Your task to perform on an android device: clear history in the chrome app Image 0: 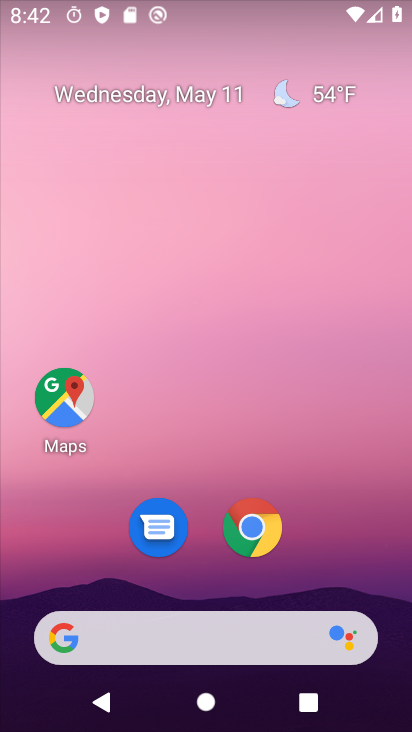
Step 0: click (255, 524)
Your task to perform on an android device: clear history in the chrome app Image 1: 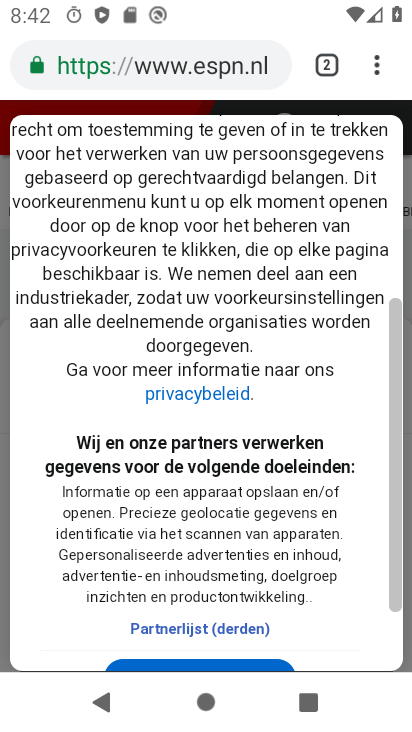
Step 1: click (374, 60)
Your task to perform on an android device: clear history in the chrome app Image 2: 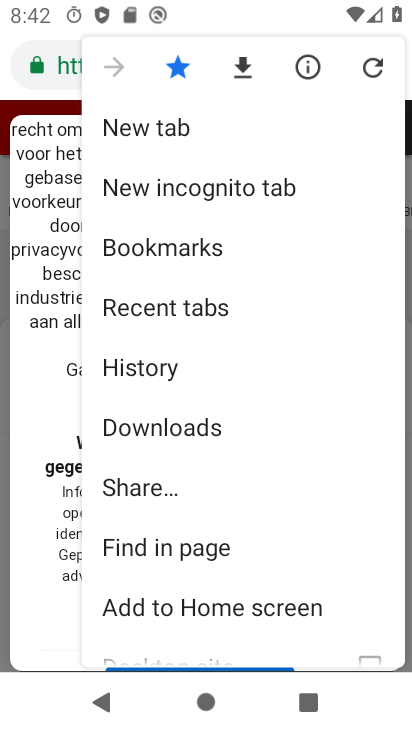
Step 2: click (169, 369)
Your task to perform on an android device: clear history in the chrome app Image 3: 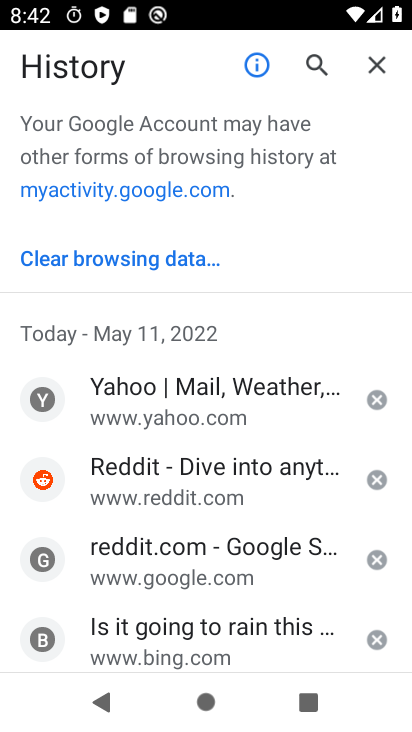
Step 3: click (146, 266)
Your task to perform on an android device: clear history in the chrome app Image 4: 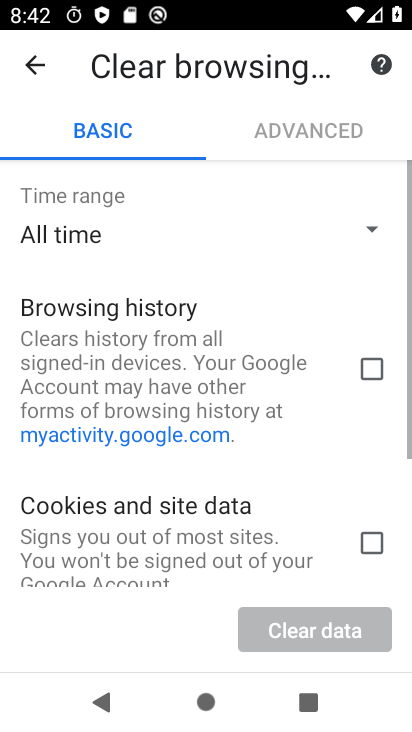
Step 4: click (363, 371)
Your task to perform on an android device: clear history in the chrome app Image 5: 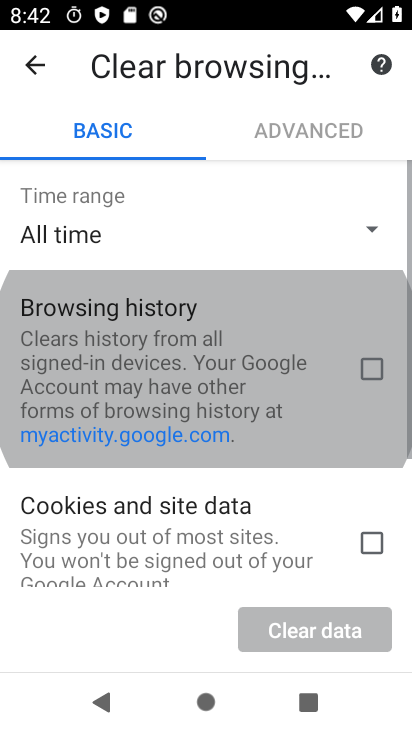
Step 5: drag from (288, 460) to (240, 77)
Your task to perform on an android device: clear history in the chrome app Image 6: 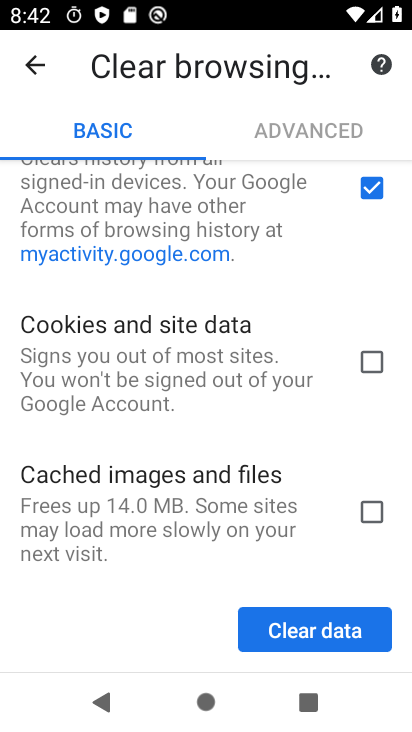
Step 6: click (314, 622)
Your task to perform on an android device: clear history in the chrome app Image 7: 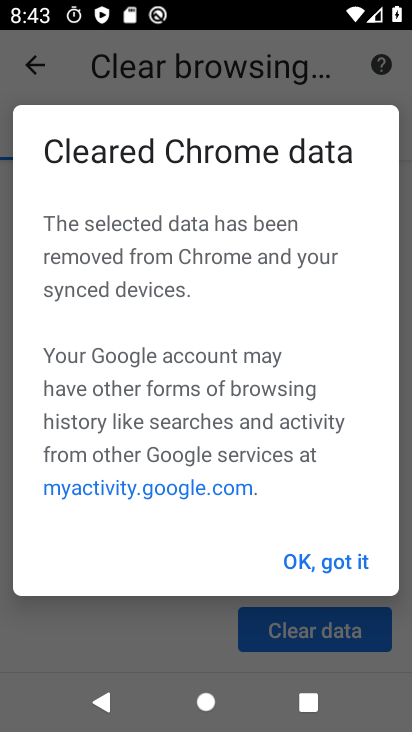
Step 7: click (312, 571)
Your task to perform on an android device: clear history in the chrome app Image 8: 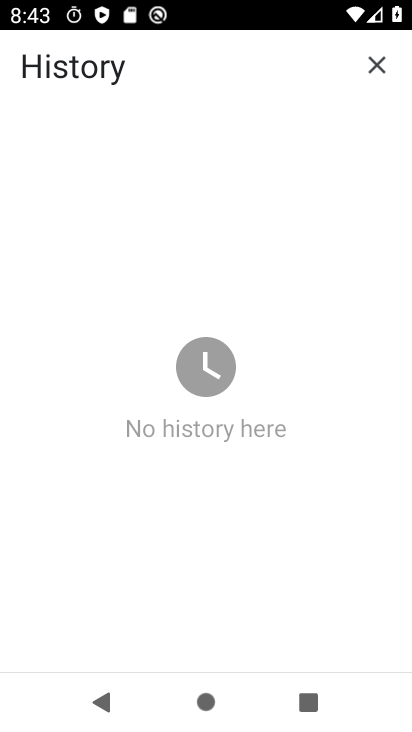
Step 8: task complete